Your task to perform on an android device: Go to CNN.com Image 0: 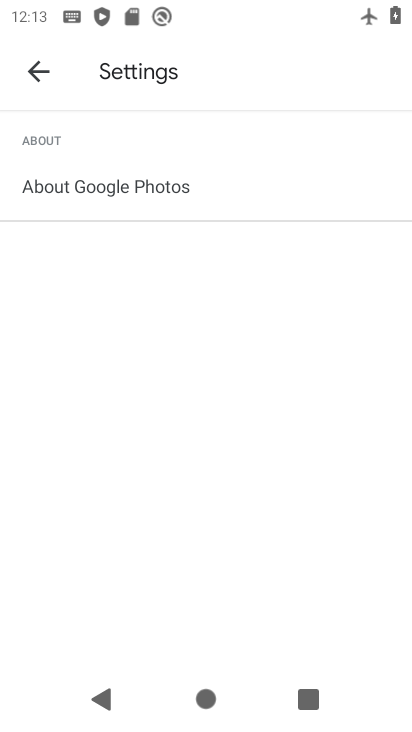
Step 0: press home button
Your task to perform on an android device: Go to CNN.com Image 1: 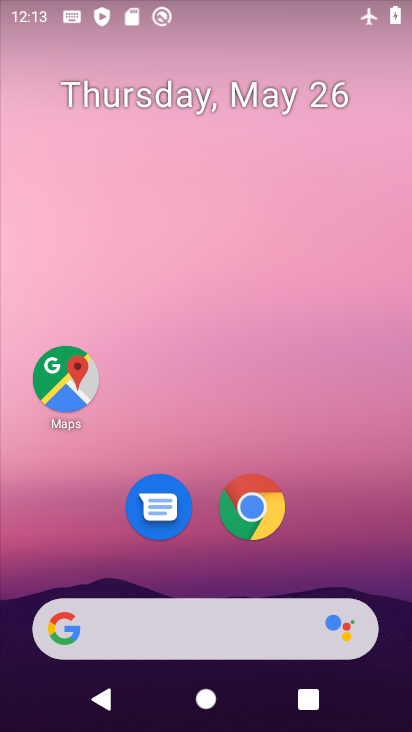
Step 1: click (241, 515)
Your task to perform on an android device: Go to CNN.com Image 2: 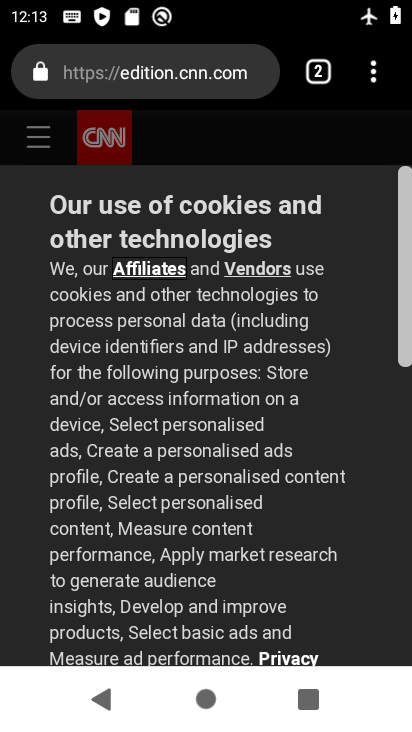
Step 2: task complete